Your task to perform on an android device: Go to battery settings Image 0: 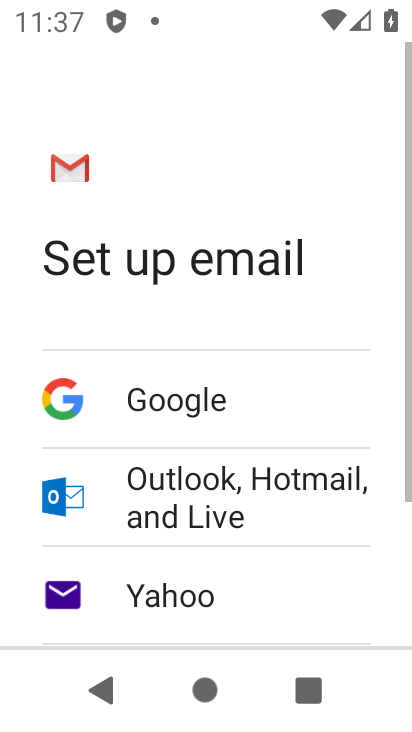
Step 0: press home button
Your task to perform on an android device: Go to battery settings Image 1: 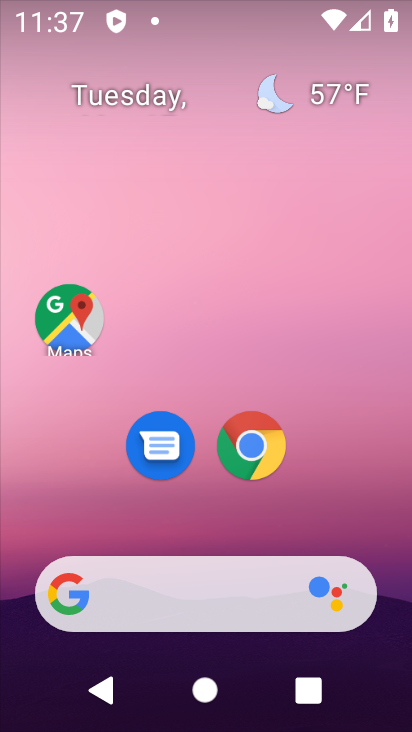
Step 1: drag from (379, 521) to (347, 118)
Your task to perform on an android device: Go to battery settings Image 2: 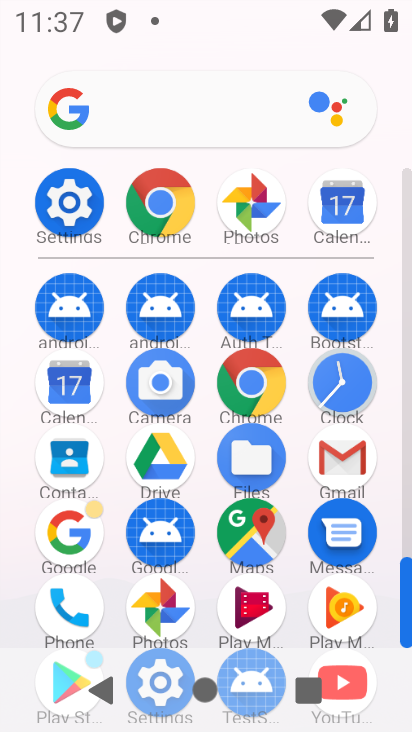
Step 2: click (45, 217)
Your task to perform on an android device: Go to battery settings Image 3: 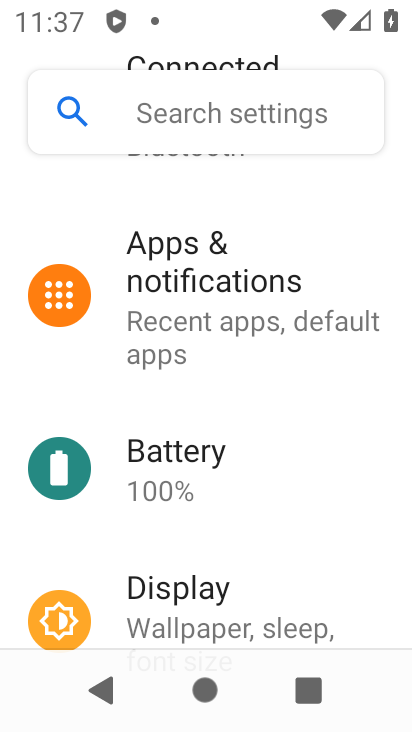
Step 3: drag from (359, 266) to (354, 452)
Your task to perform on an android device: Go to battery settings Image 4: 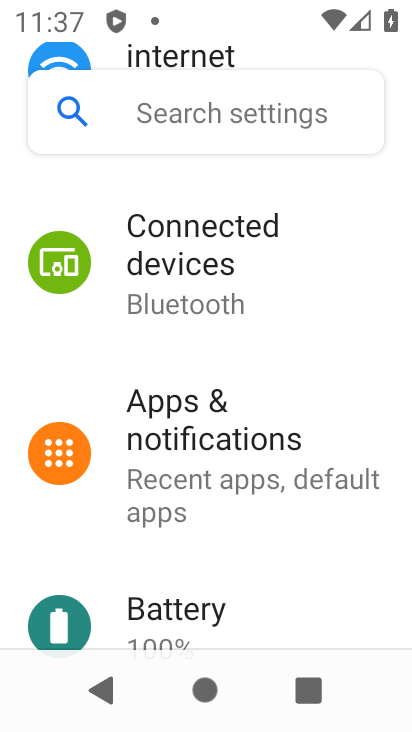
Step 4: drag from (348, 271) to (328, 459)
Your task to perform on an android device: Go to battery settings Image 5: 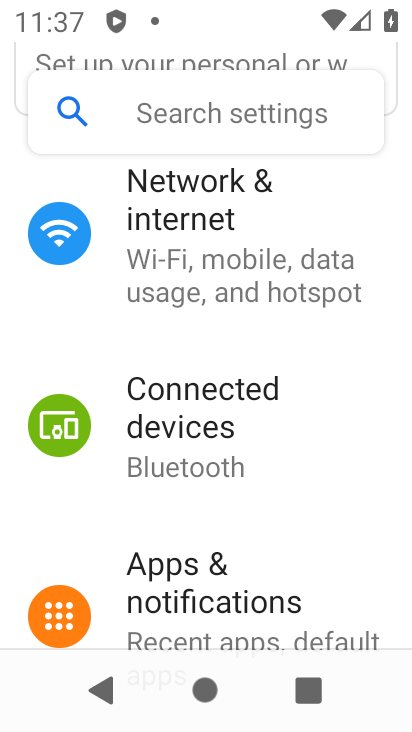
Step 5: drag from (363, 217) to (338, 429)
Your task to perform on an android device: Go to battery settings Image 6: 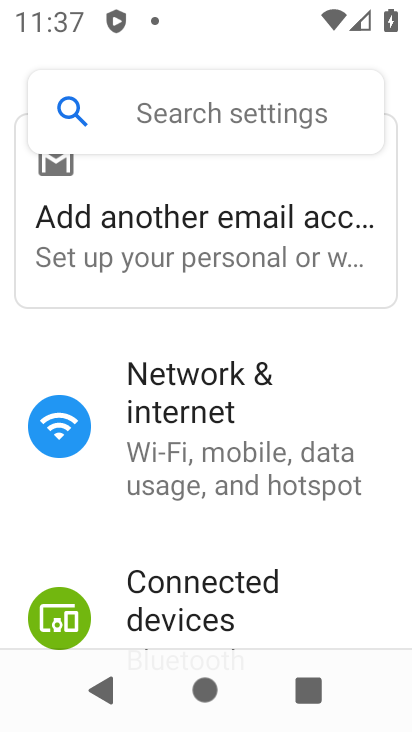
Step 6: drag from (341, 560) to (325, 362)
Your task to perform on an android device: Go to battery settings Image 7: 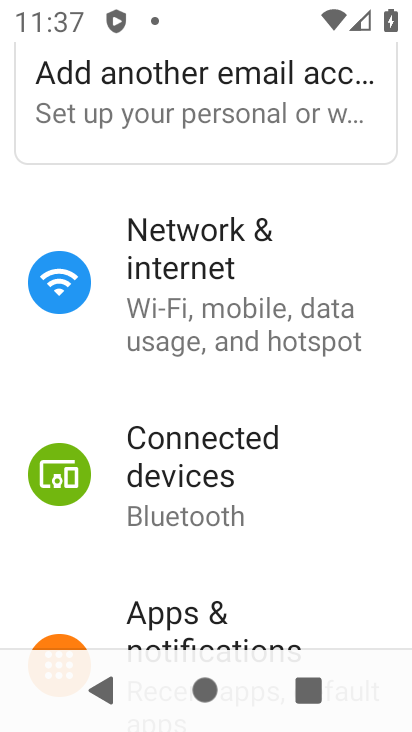
Step 7: drag from (329, 569) to (319, 381)
Your task to perform on an android device: Go to battery settings Image 8: 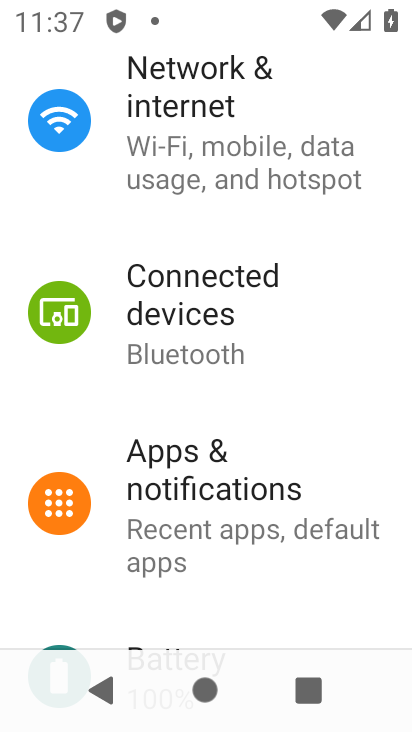
Step 8: drag from (321, 609) to (320, 431)
Your task to perform on an android device: Go to battery settings Image 9: 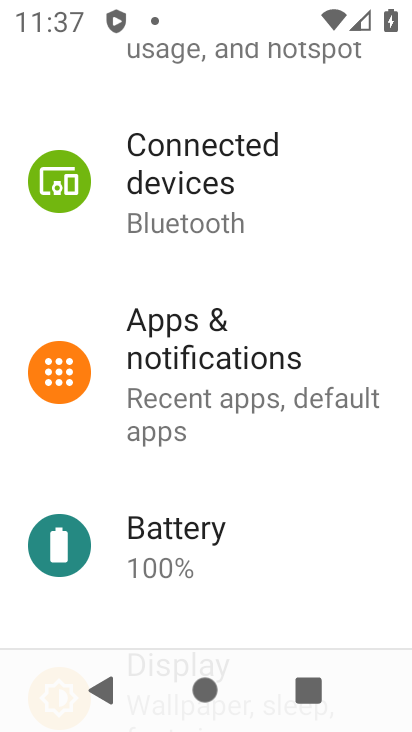
Step 9: drag from (321, 586) to (317, 479)
Your task to perform on an android device: Go to battery settings Image 10: 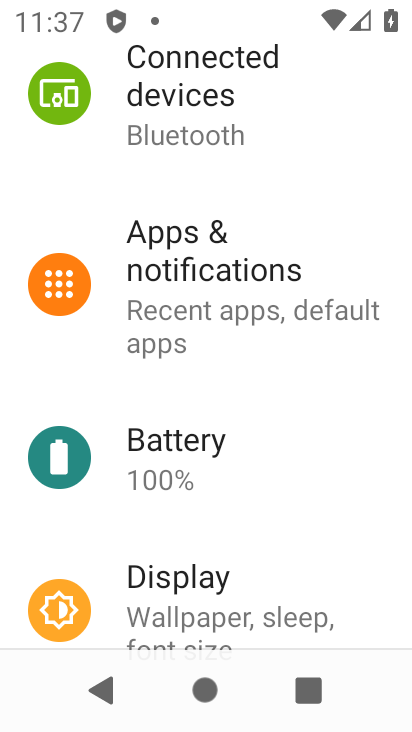
Step 10: click (215, 474)
Your task to perform on an android device: Go to battery settings Image 11: 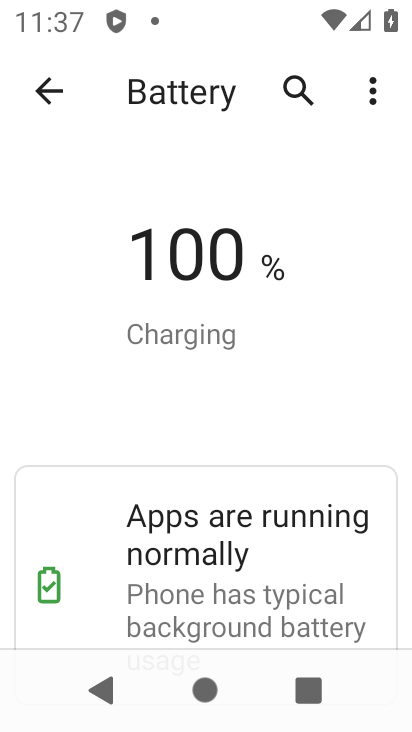
Step 11: task complete